Your task to perform on an android device: Open calendar and show me the third week of next month Image 0: 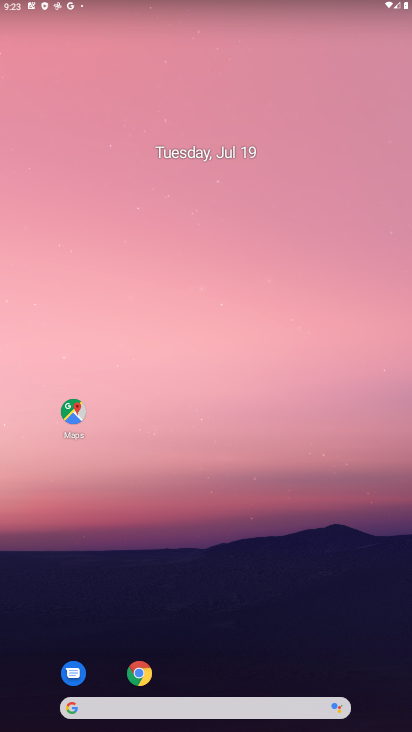
Step 0: drag from (234, 650) to (190, 10)
Your task to perform on an android device: Open calendar and show me the third week of next month Image 1: 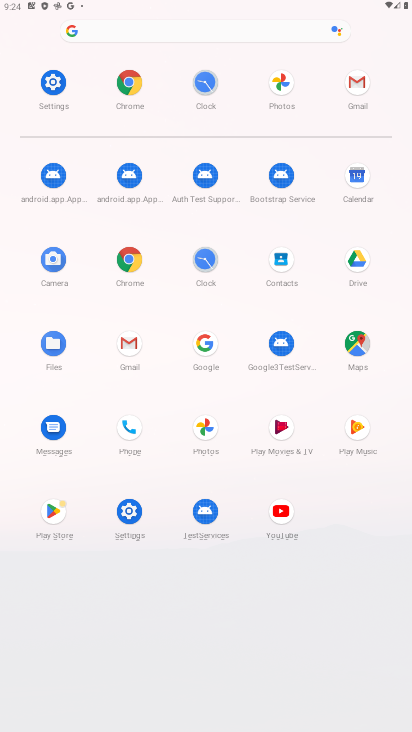
Step 1: click (360, 184)
Your task to perform on an android device: Open calendar and show me the third week of next month Image 2: 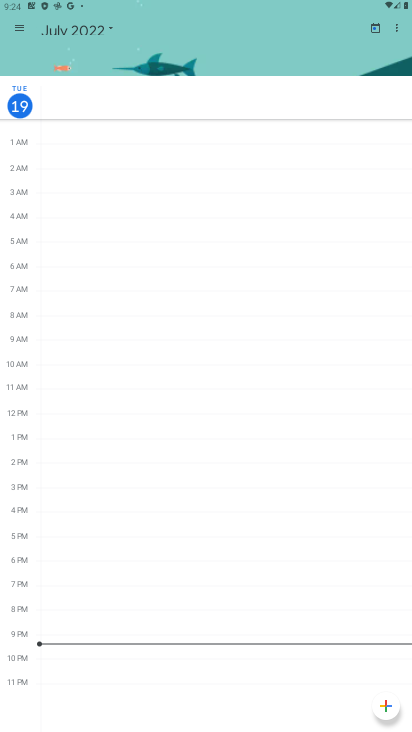
Step 2: task complete